Your task to perform on an android device: empty trash in the gmail app Image 0: 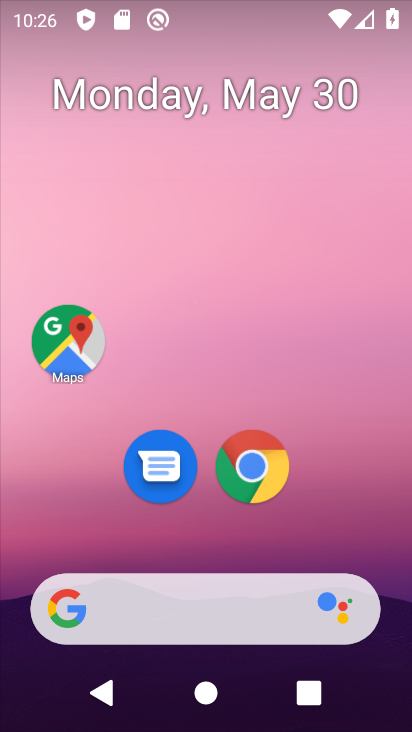
Step 0: drag from (159, 731) to (207, 65)
Your task to perform on an android device: empty trash in the gmail app Image 1: 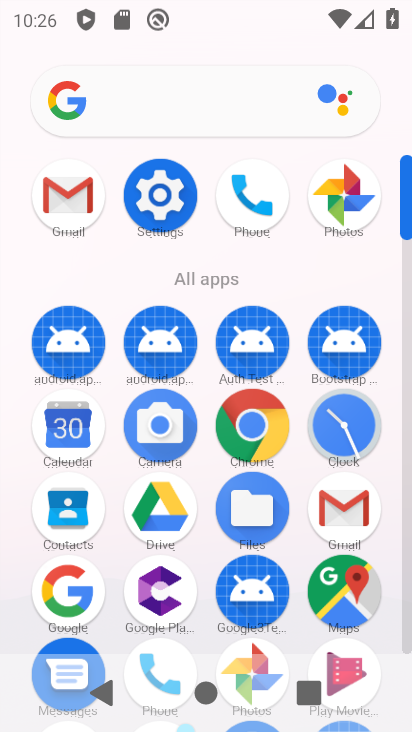
Step 1: click (83, 208)
Your task to perform on an android device: empty trash in the gmail app Image 2: 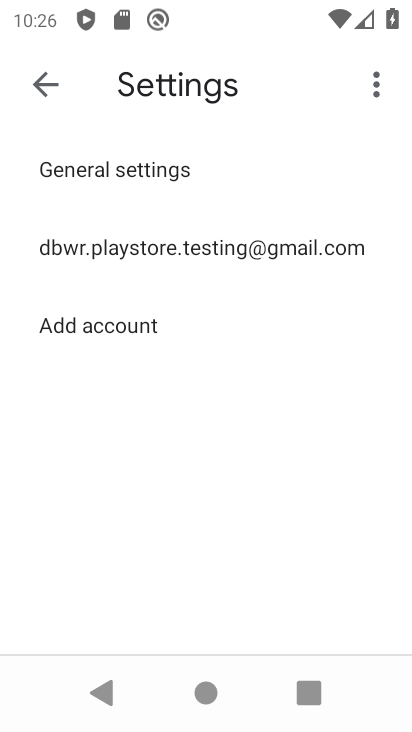
Step 2: click (291, 244)
Your task to perform on an android device: empty trash in the gmail app Image 3: 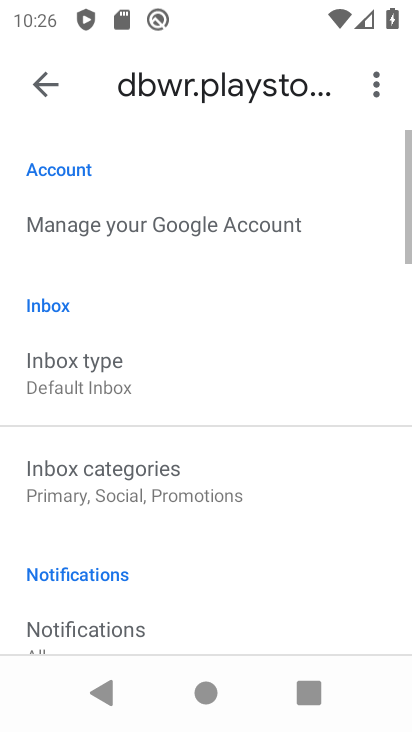
Step 3: click (56, 74)
Your task to perform on an android device: empty trash in the gmail app Image 4: 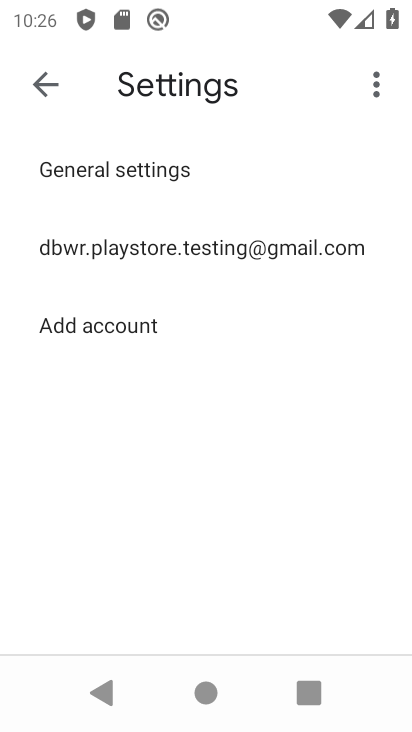
Step 4: click (53, 82)
Your task to perform on an android device: empty trash in the gmail app Image 5: 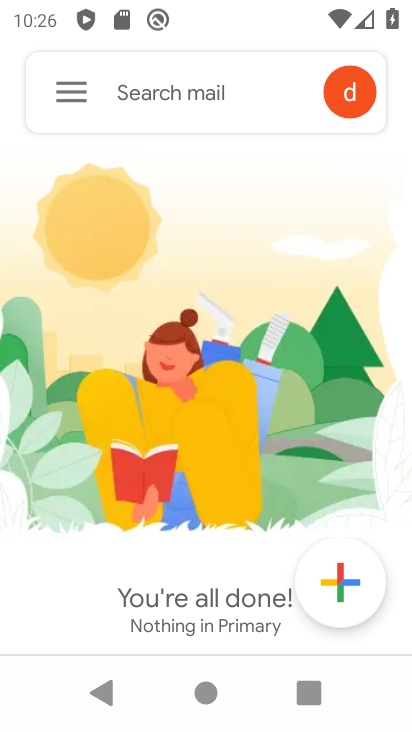
Step 5: click (80, 91)
Your task to perform on an android device: empty trash in the gmail app Image 6: 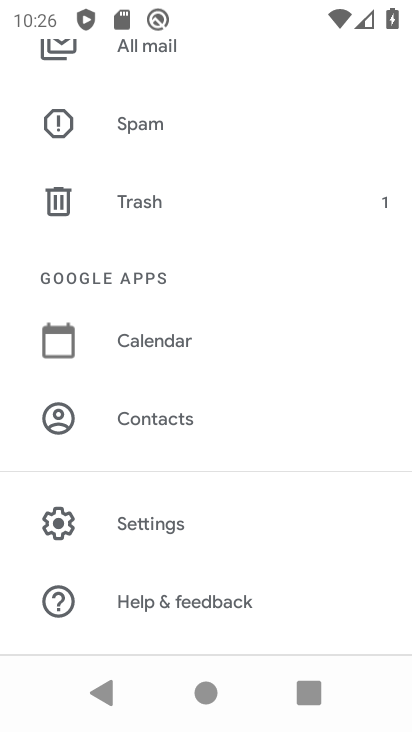
Step 6: click (143, 197)
Your task to perform on an android device: empty trash in the gmail app Image 7: 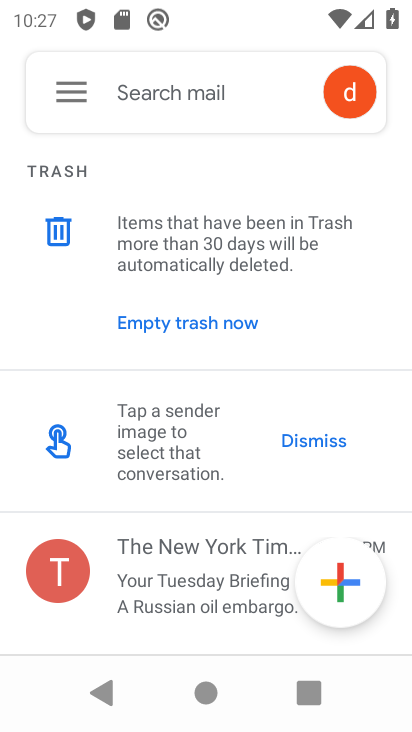
Step 7: drag from (226, 519) to (230, 192)
Your task to perform on an android device: empty trash in the gmail app Image 8: 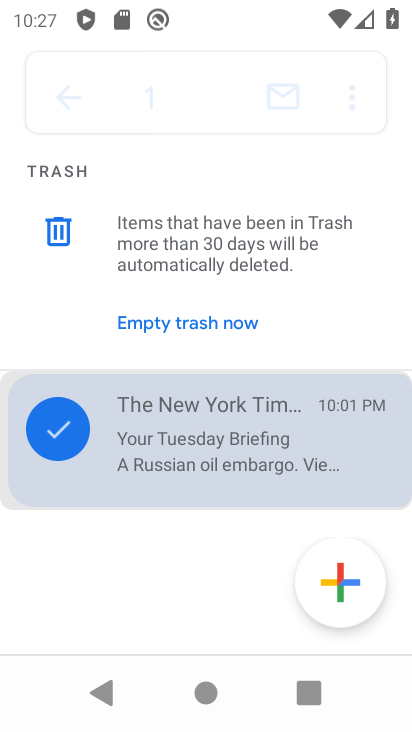
Step 8: click (223, 323)
Your task to perform on an android device: empty trash in the gmail app Image 9: 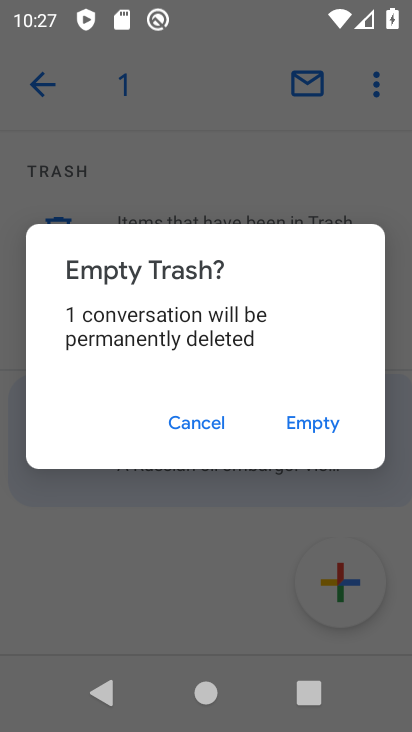
Step 9: click (328, 431)
Your task to perform on an android device: empty trash in the gmail app Image 10: 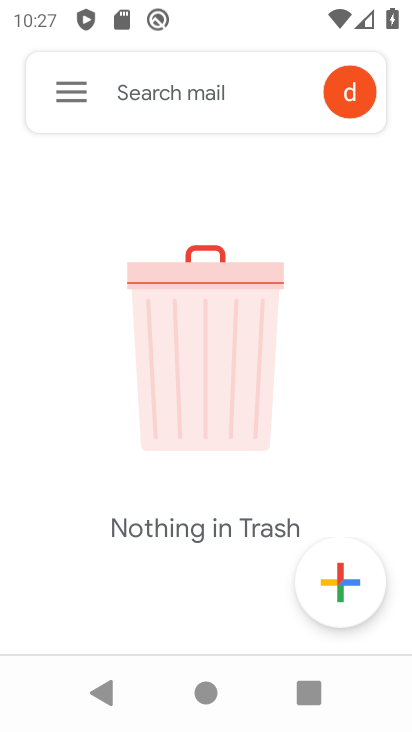
Step 10: task complete